Your task to perform on an android device: Clear the shopping cart on target. Search for logitech g pro on target, select the first entry, add it to the cart, then select checkout. Image 0: 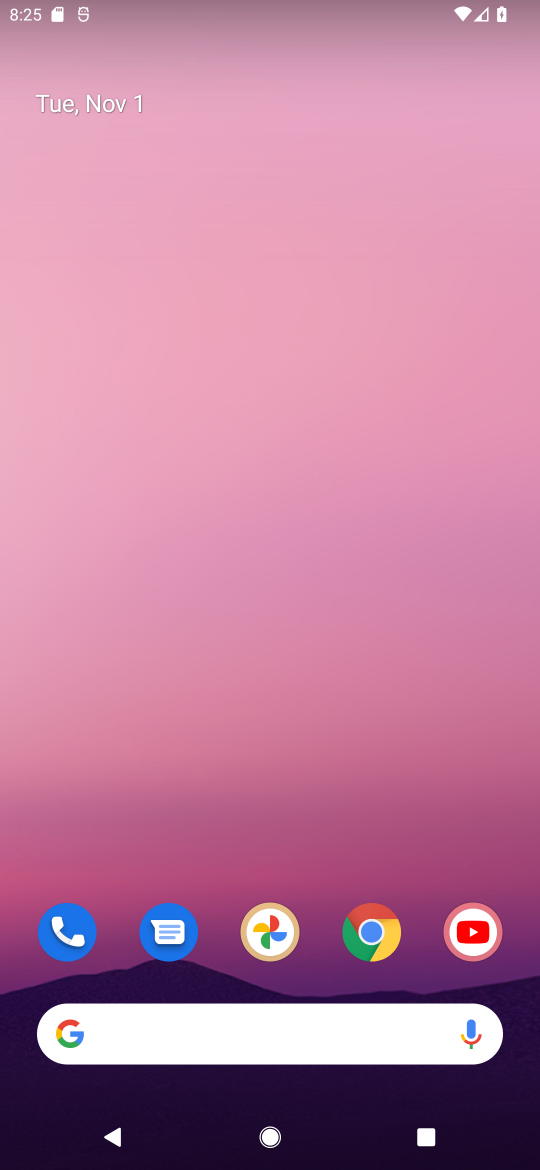
Step 0: click (375, 944)
Your task to perform on an android device: Clear the shopping cart on target. Search for logitech g pro on target, select the first entry, add it to the cart, then select checkout. Image 1: 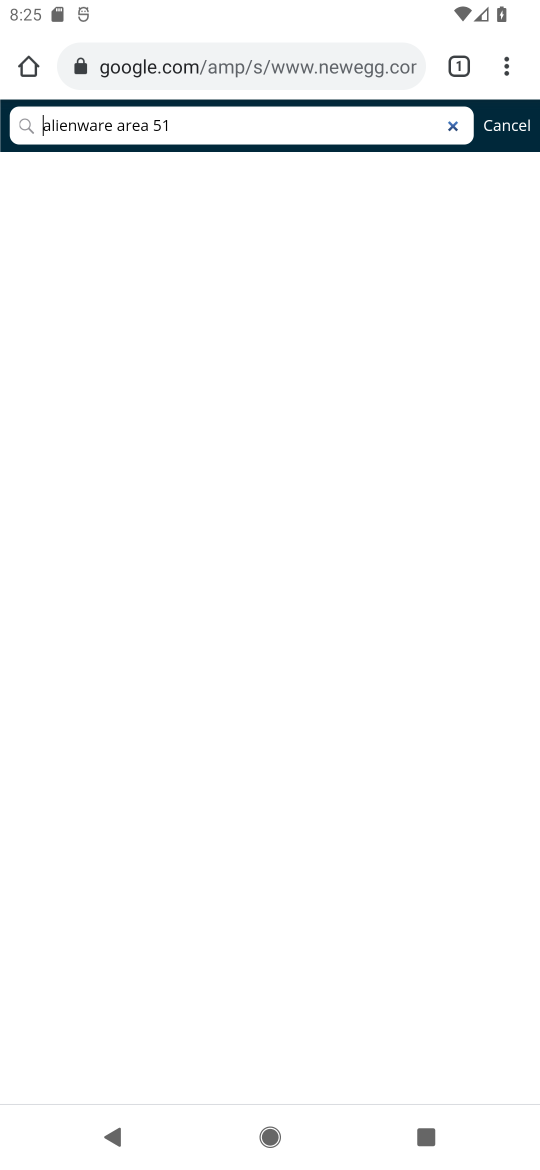
Step 1: click (200, 75)
Your task to perform on an android device: Clear the shopping cart on target. Search for logitech g pro on target, select the first entry, add it to the cart, then select checkout. Image 2: 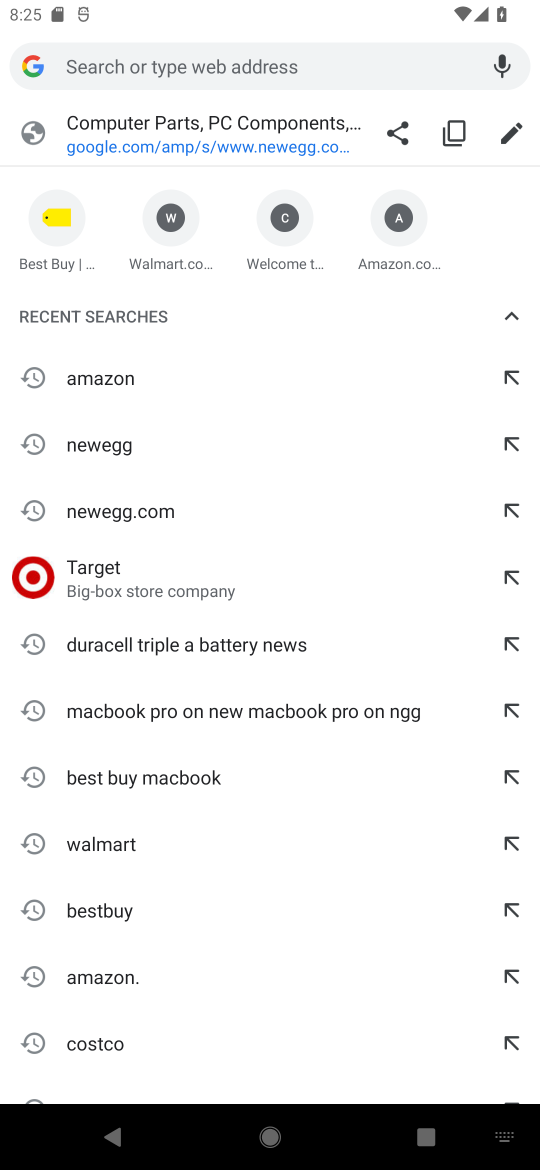
Step 2: click (129, 571)
Your task to perform on an android device: Clear the shopping cart on target. Search for logitech g pro on target, select the first entry, add it to the cart, then select checkout. Image 3: 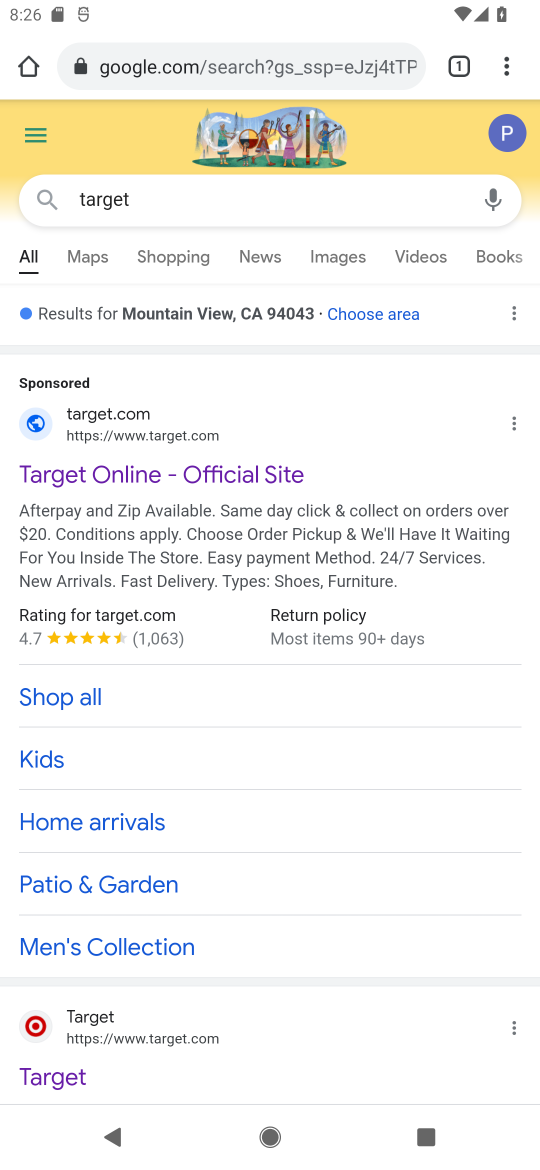
Step 3: click (97, 470)
Your task to perform on an android device: Clear the shopping cart on target. Search for logitech g pro on target, select the first entry, add it to the cart, then select checkout. Image 4: 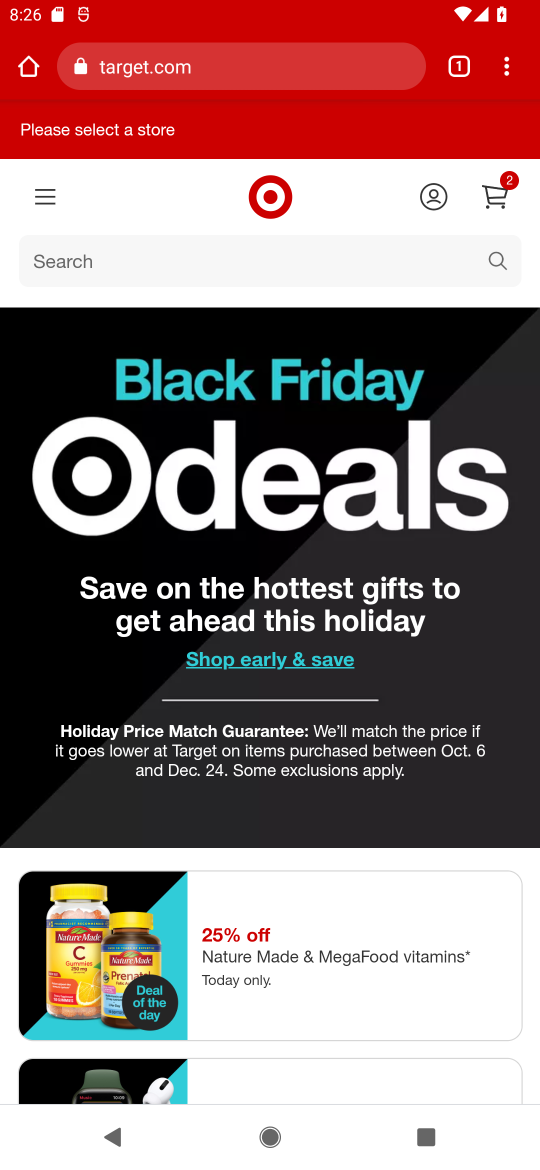
Step 4: click (503, 191)
Your task to perform on an android device: Clear the shopping cart on target. Search for logitech g pro on target, select the first entry, add it to the cart, then select checkout. Image 5: 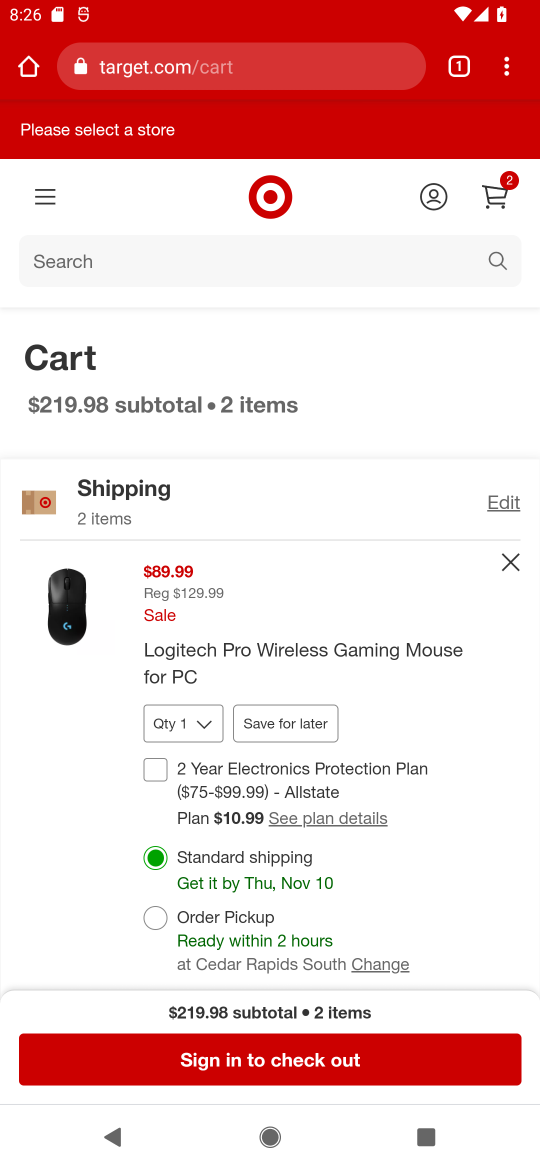
Step 5: click (510, 570)
Your task to perform on an android device: Clear the shopping cart on target. Search for logitech g pro on target, select the first entry, add it to the cart, then select checkout. Image 6: 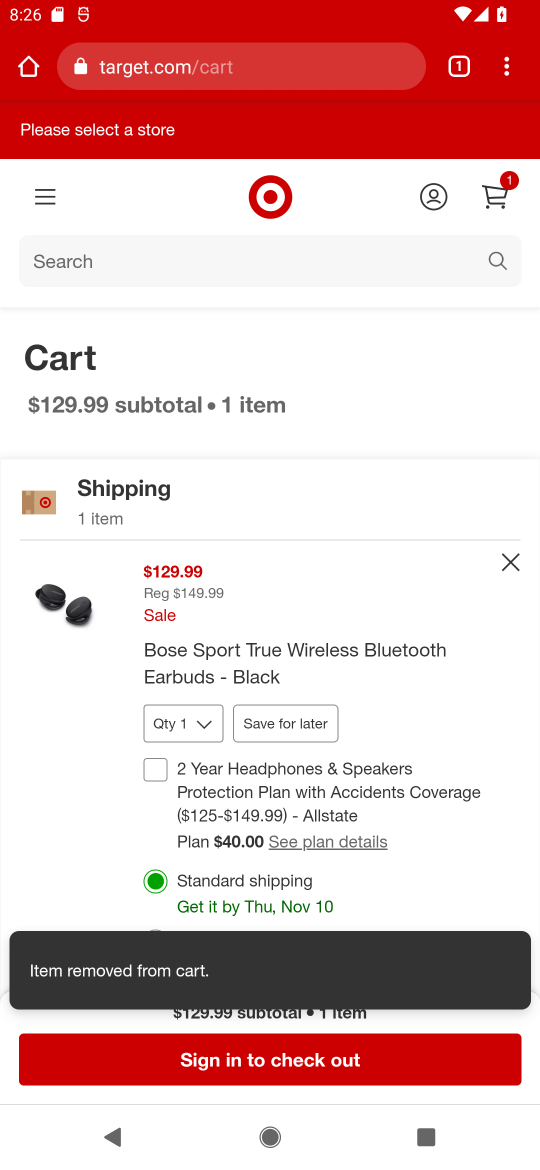
Step 6: click (510, 570)
Your task to perform on an android device: Clear the shopping cart on target. Search for logitech g pro on target, select the first entry, add it to the cart, then select checkout. Image 7: 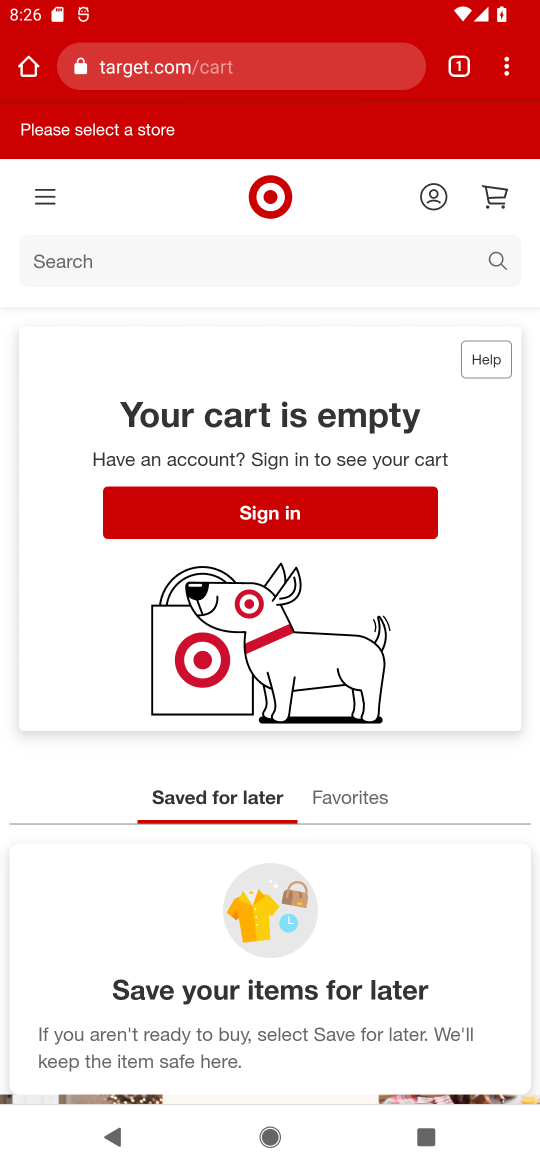
Step 7: click (79, 267)
Your task to perform on an android device: Clear the shopping cart on target. Search for logitech g pro on target, select the first entry, add it to the cart, then select checkout. Image 8: 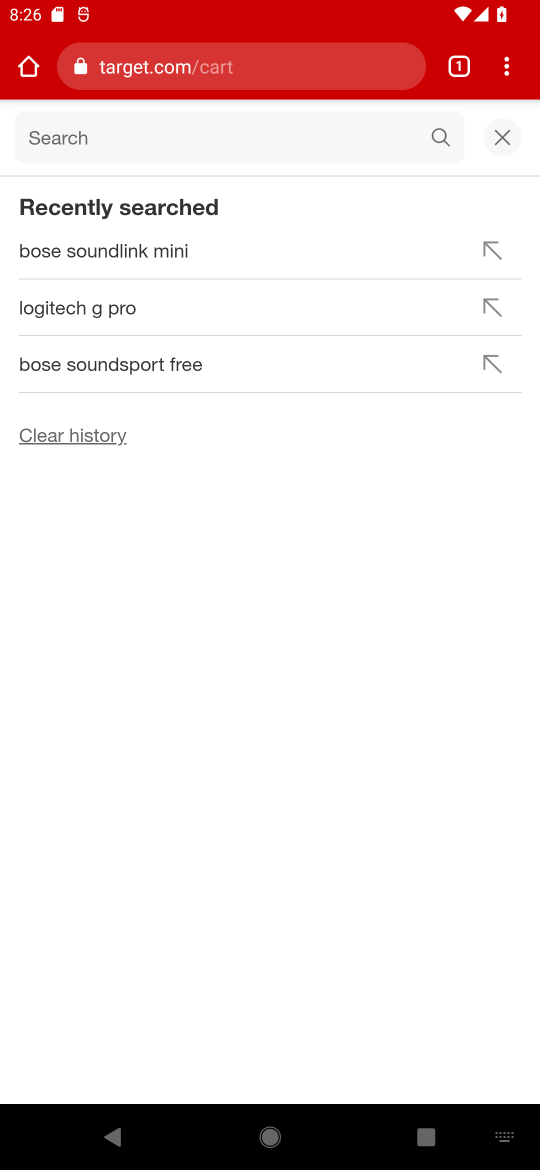
Step 8: type " logitech g pro"
Your task to perform on an android device: Clear the shopping cart on target. Search for logitech g pro on target, select the first entry, add it to the cart, then select checkout. Image 9: 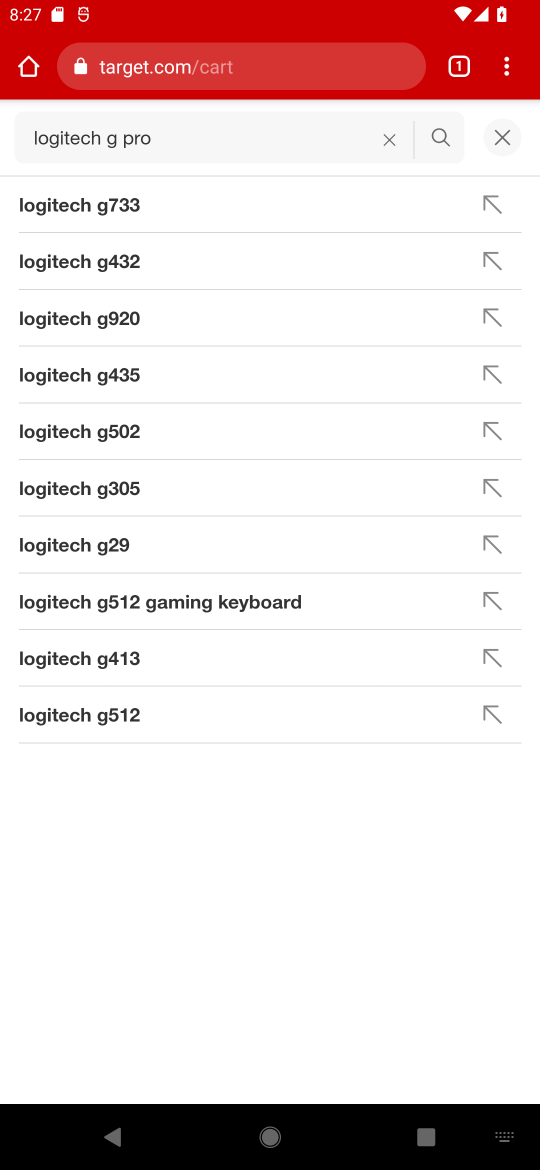
Step 9: click (426, 135)
Your task to perform on an android device: Clear the shopping cart on target. Search for logitech g pro on target, select the first entry, add it to the cart, then select checkout. Image 10: 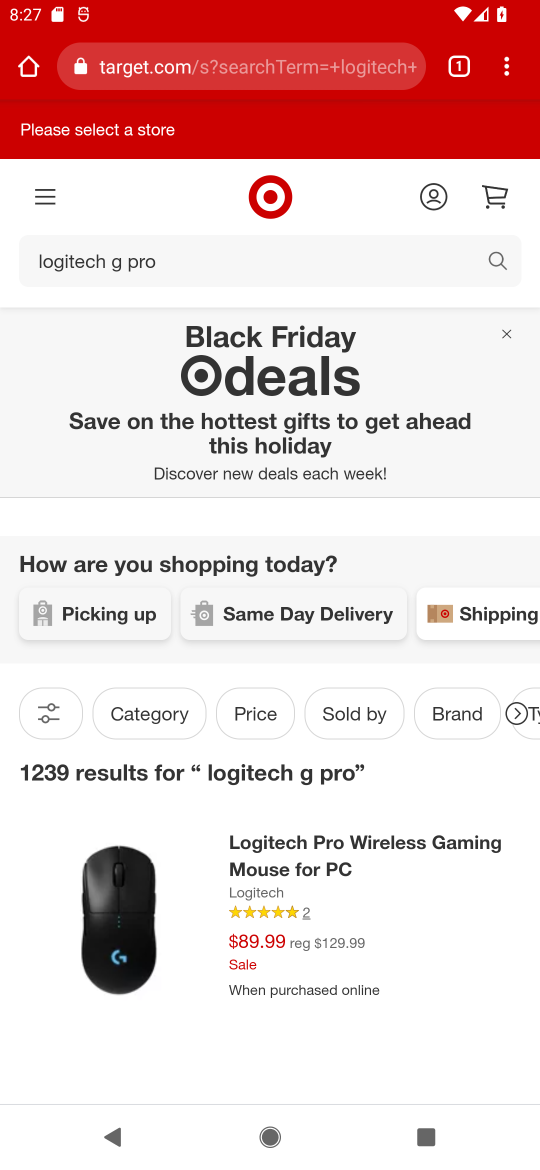
Step 10: drag from (233, 918) to (230, 657)
Your task to perform on an android device: Clear the shopping cart on target. Search for logitech g pro on target, select the first entry, add it to the cart, then select checkout. Image 11: 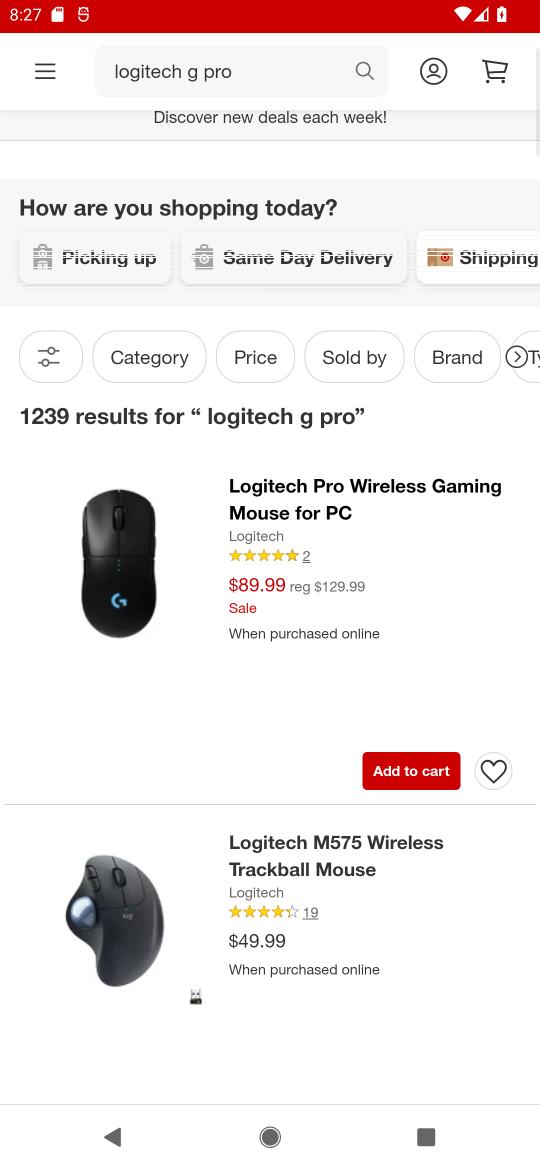
Step 11: click (291, 589)
Your task to perform on an android device: Clear the shopping cart on target. Search for logitech g pro on target, select the first entry, add it to the cart, then select checkout. Image 12: 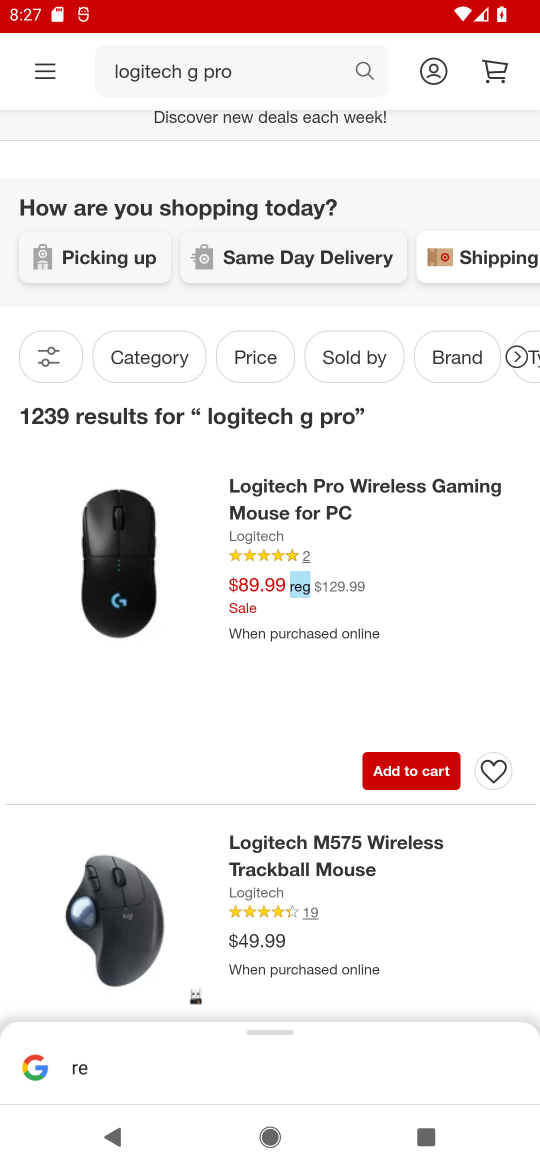
Step 12: click (276, 521)
Your task to perform on an android device: Clear the shopping cart on target. Search for logitech g pro on target, select the first entry, add it to the cart, then select checkout. Image 13: 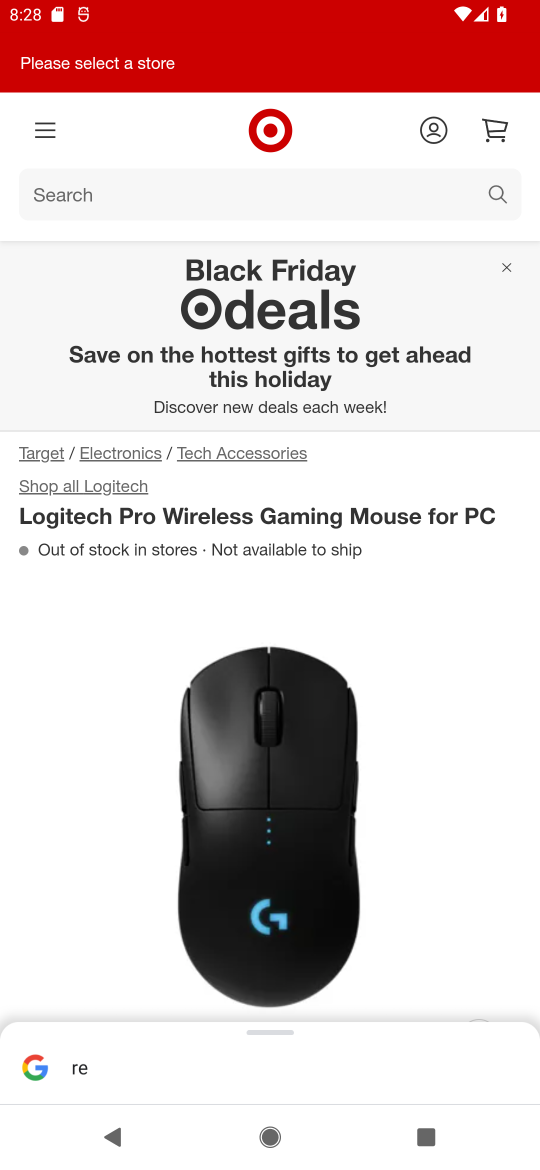
Step 13: drag from (334, 868) to (350, 470)
Your task to perform on an android device: Clear the shopping cart on target. Search for logitech g pro on target, select the first entry, add it to the cart, then select checkout. Image 14: 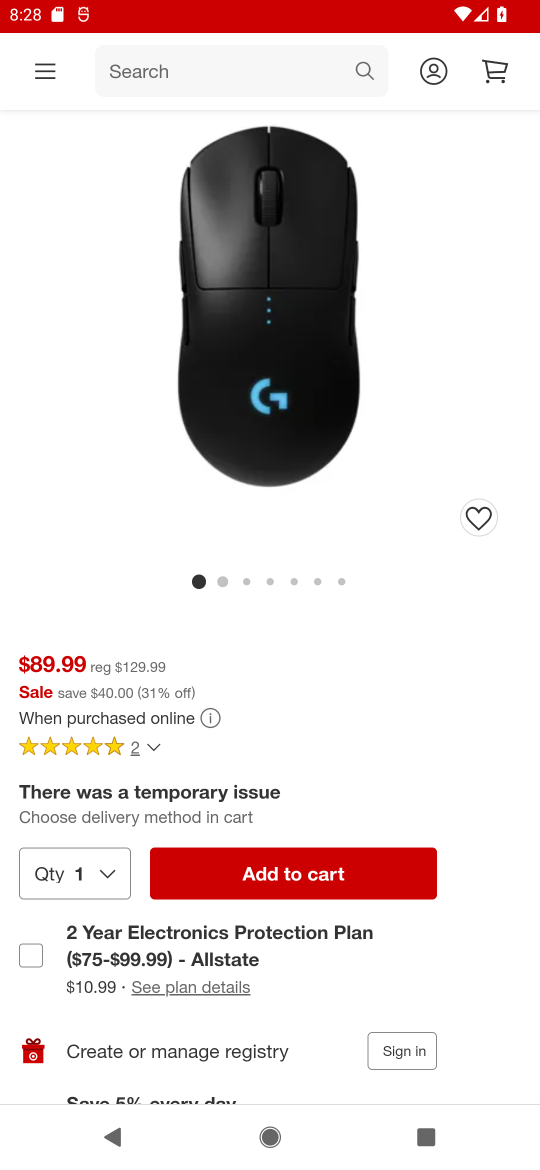
Step 14: click (256, 876)
Your task to perform on an android device: Clear the shopping cart on target. Search for logitech g pro on target, select the first entry, add it to the cart, then select checkout. Image 15: 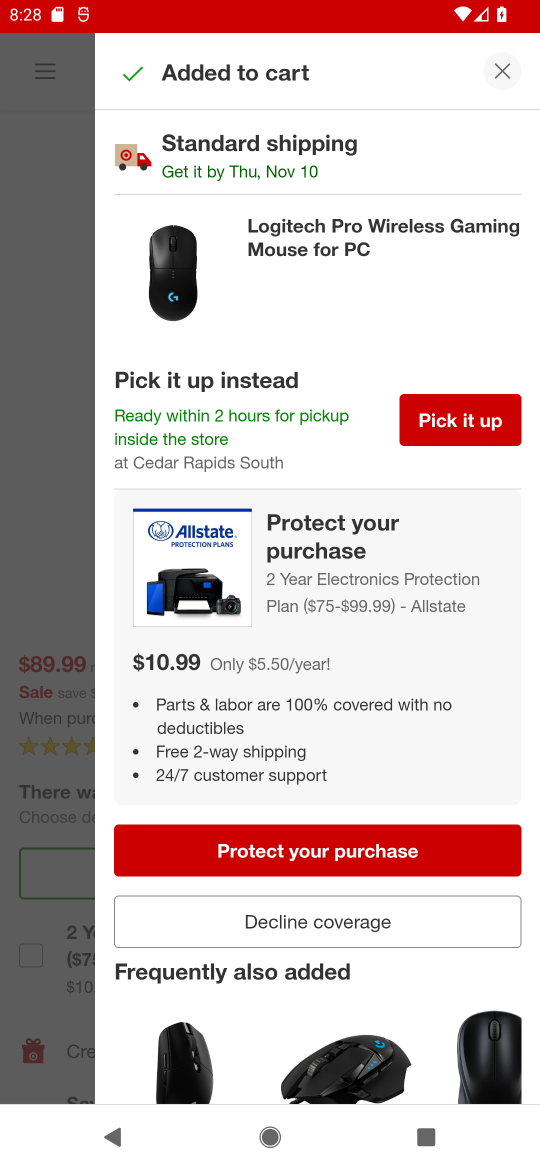
Step 15: click (488, 73)
Your task to perform on an android device: Clear the shopping cart on target. Search for logitech g pro on target, select the first entry, add it to the cart, then select checkout. Image 16: 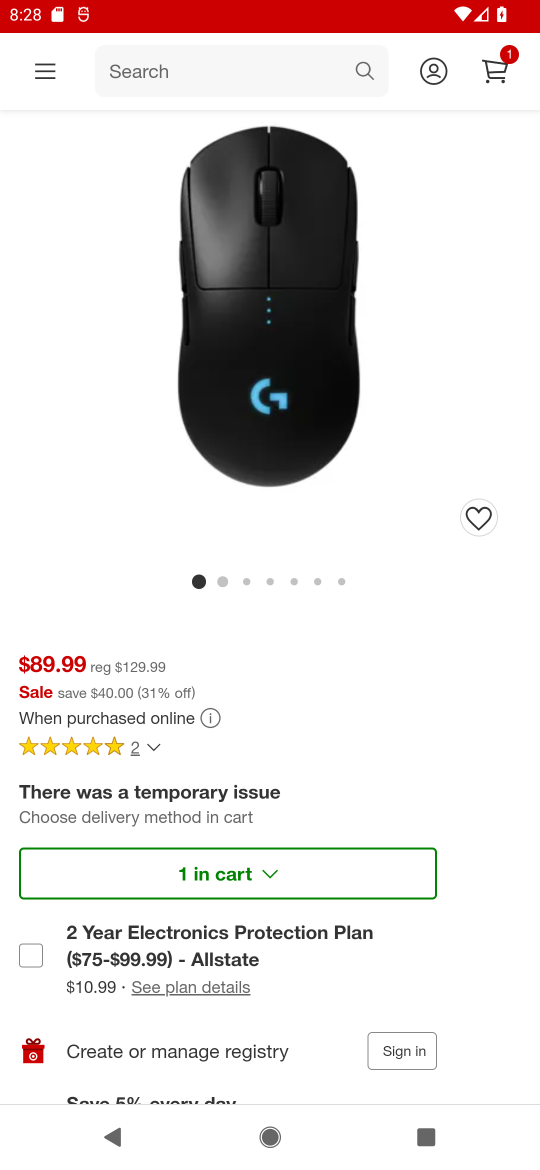
Step 16: click (484, 60)
Your task to perform on an android device: Clear the shopping cart on target. Search for logitech g pro on target, select the first entry, add it to the cart, then select checkout. Image 17: 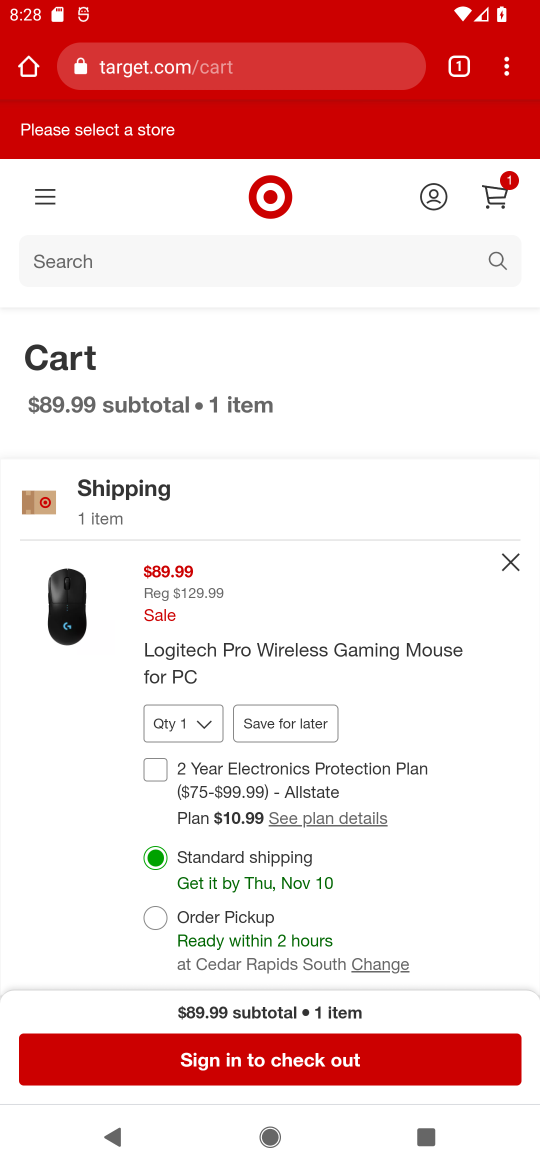
Step 17: click (285, 1054)
Your task to perform on an android device: Clear the shopping cart on target. Search for logitech g pro on target, select the first entry, add it to the cart, then select checkout. Image 18: 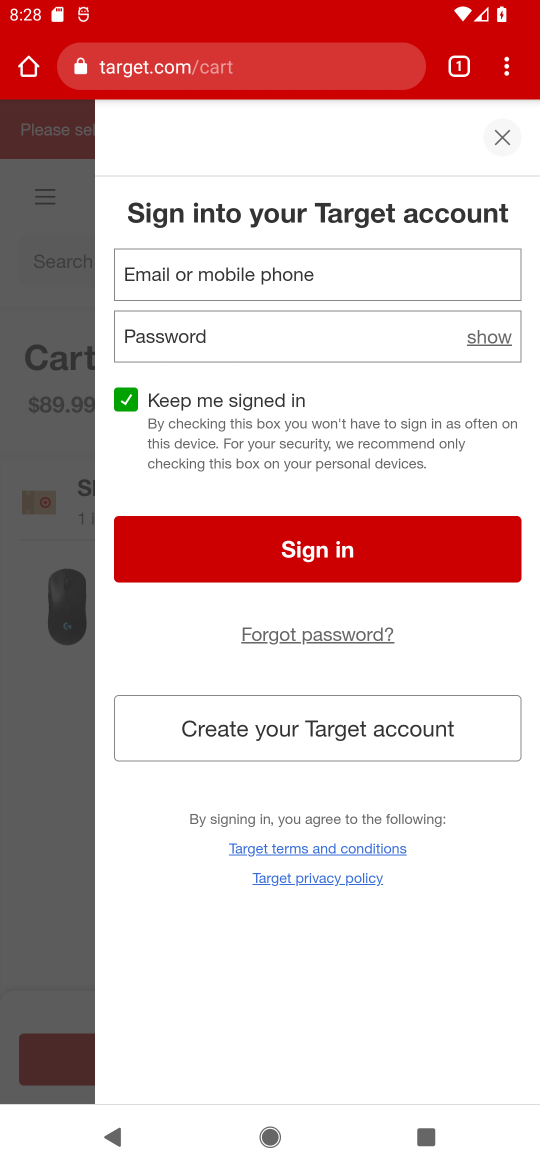
Step 18: task complete